Your task to perform on an android device: Open settings Image 0: 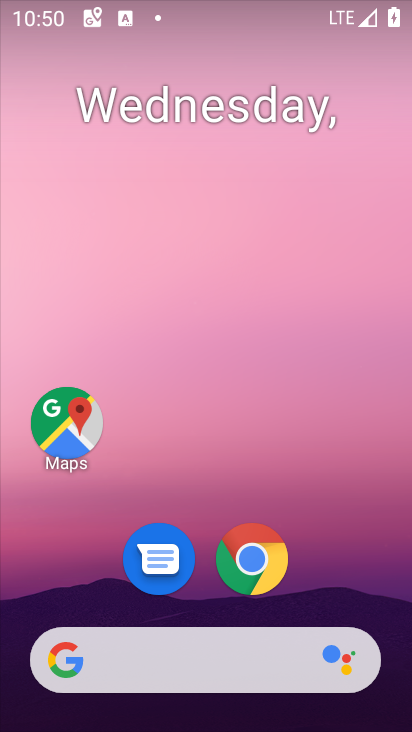
Step 0: drag from (333, 563) to (281, 177)
Your task to perform on an android device: Open settings Image 1: 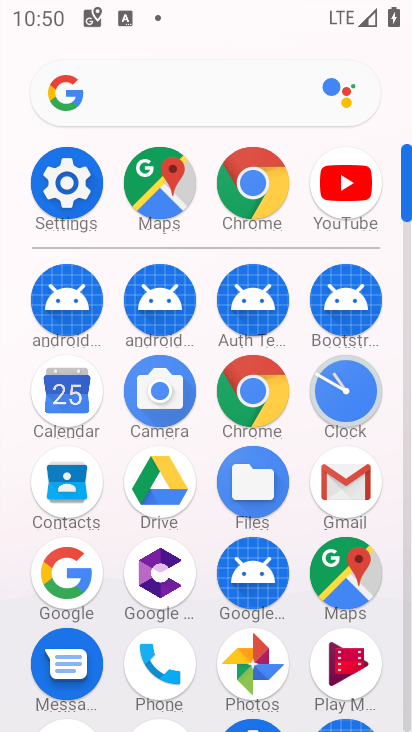
Step 1: click (78, 203)
Your task to perform on an android device: Open settings Image 2: 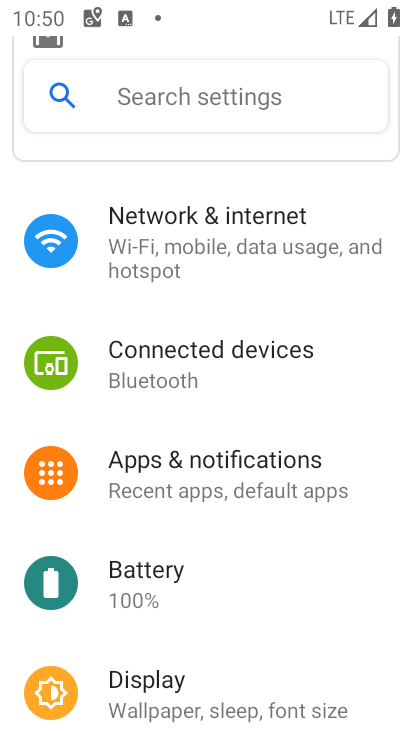
Step 2: task complete